Your task to perform on an android device: stop showing notifications on the lock screen Image 0: 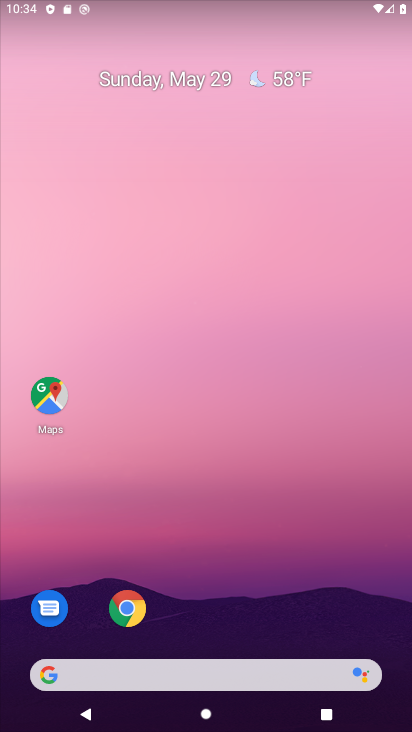
Step 0: drag from (162, 648) to (197, 209)
Your task to perform on an android device: stop showing notifications on the lock screen Image 1: 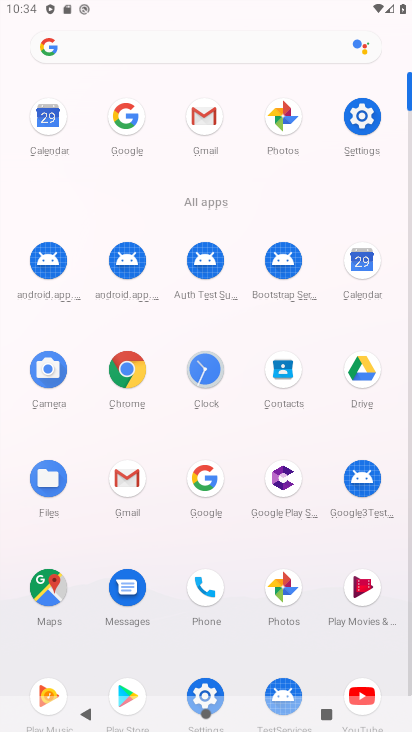
Step 1: click (361, 112)
Your task to perform on an android device: stop showing notifications on the lock screen Image 2: 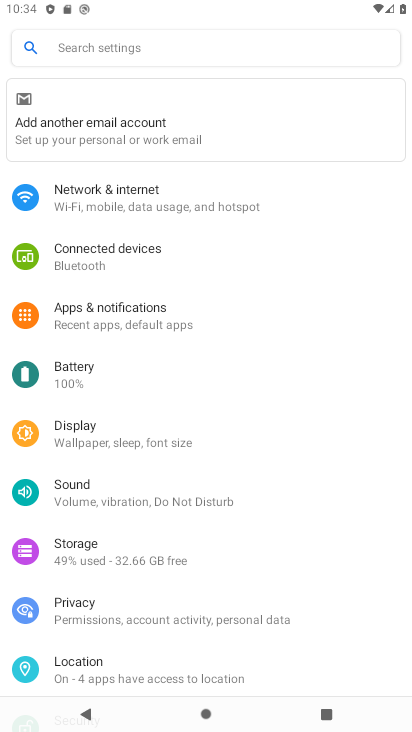
Step 2: click (85, 613)
Your task to perform on an android device: stop showing notifications on the lock screen Image 3: 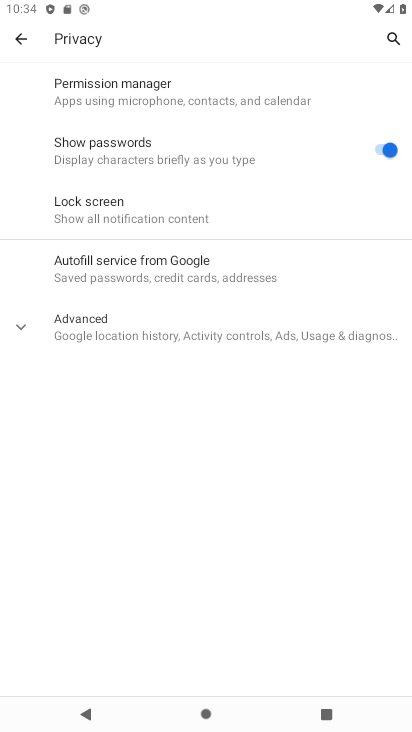
Step 3: click (100, 338)
Your task to perform on an android device: stop showing notifications on the lock screen Image 4: 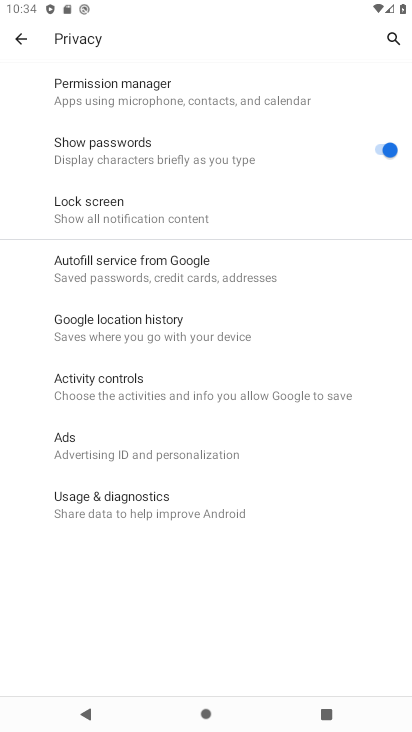
Step 4: click (118, 223)
Your task to perform on an android device: stop showing notifications on the lock screen Image 5: 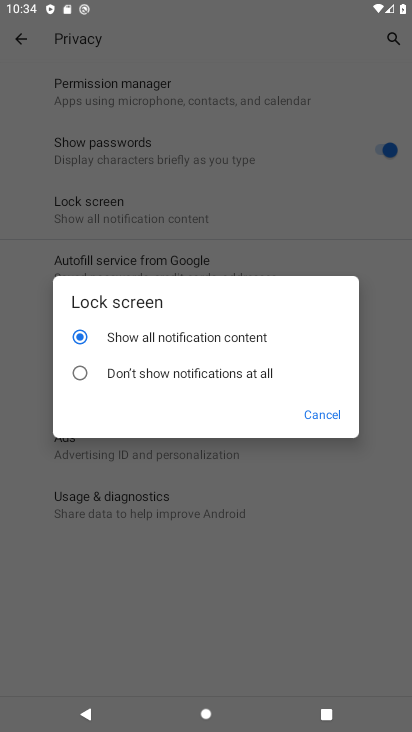
Step 5: click (145, 374)
Your task to perform on an android device: stop showing notifications on the lock screen Image 6: 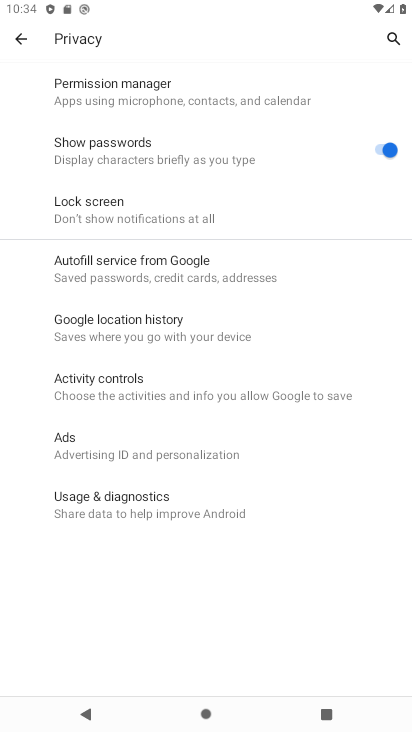
Step 6: task complete